Your task to perform on an android device: star an email in the gmail app Image 0: 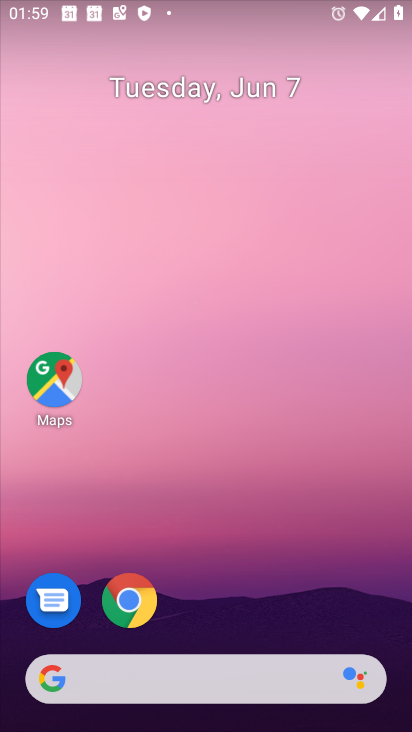
Step 0: drag from (221, 711) to (221, 87)
Your task to perform on an android device: star an email in the gmail app Image 1: 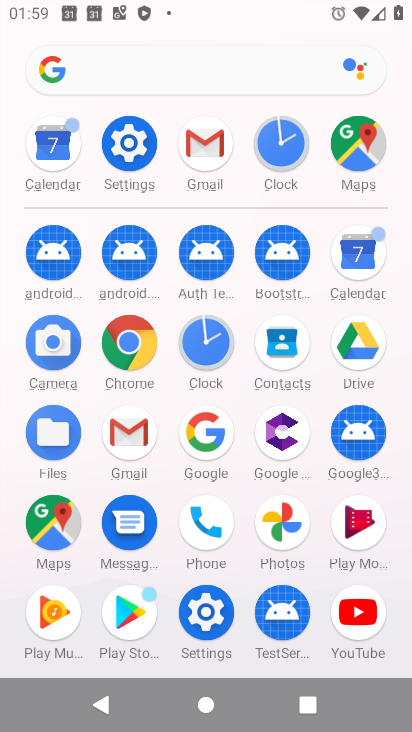
Step 1: click (133, 435)
Your task to perform on an android device: star an email in the gmail app Image 2: 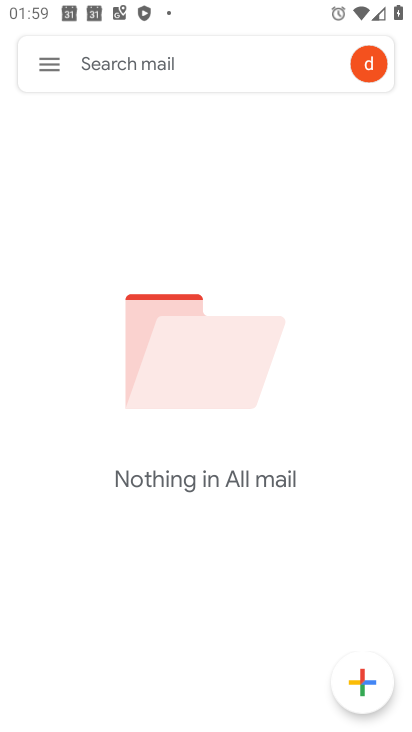
Step 2: click (39, 72)
Your task to perform on an android device: star an email in the gmail app Image 3: 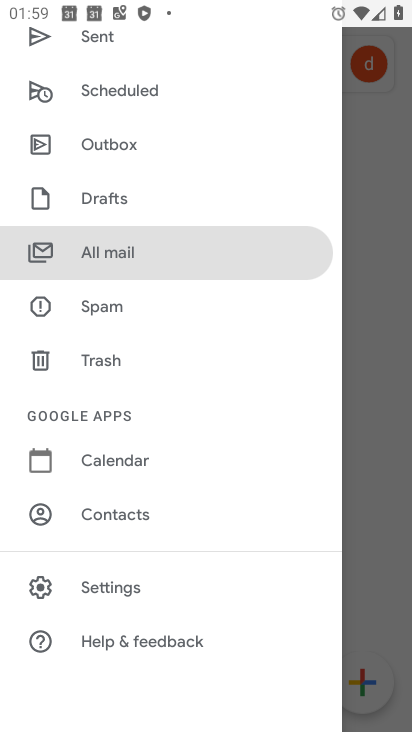
Step 3: drag from (137, 156) to (148, 589)
Your task to perform on an android device: star an email in the gmail app Image 4: 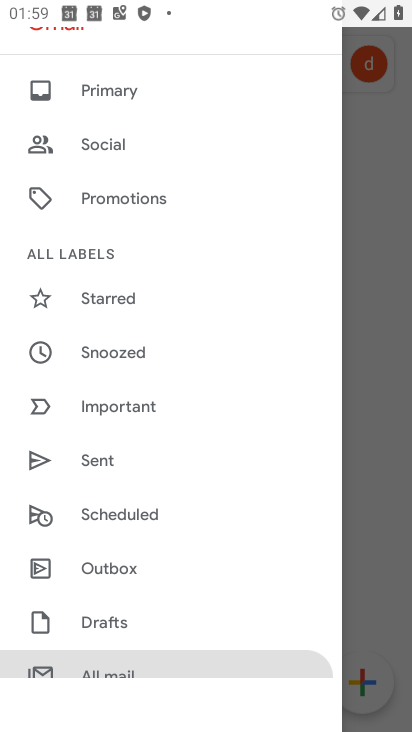
Step 4: drag from (164, 120) to (166, 512)
Your task to perform on an android device: star an email in the gmail app Image 5: 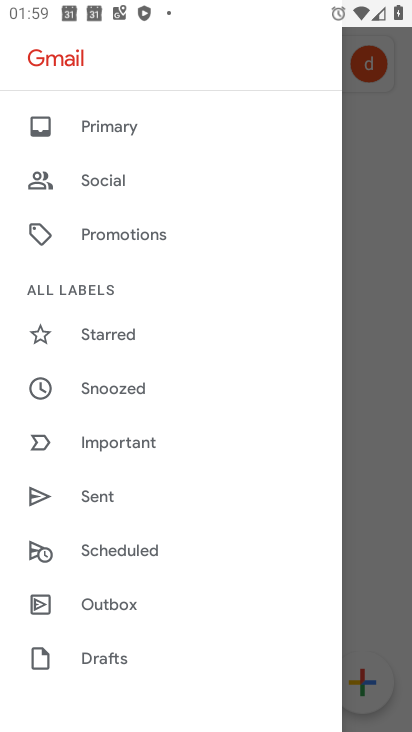
Step 5: click (112, 126)
Your task to perform on an android device: star an email in the gmail app Image 6: 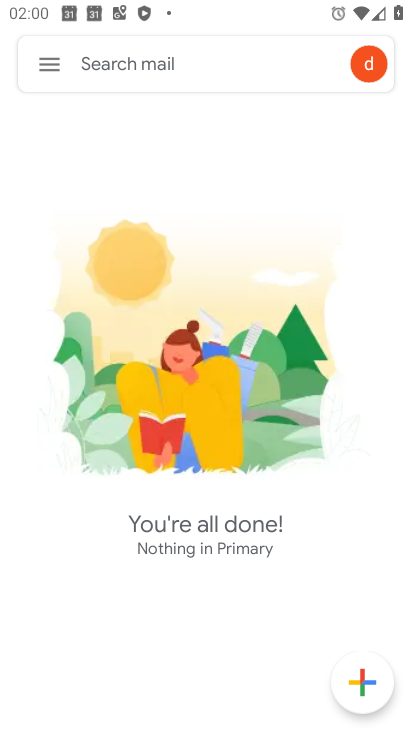
Step 6: task complete